Your task to perform on an android device: check data usage Image 0: 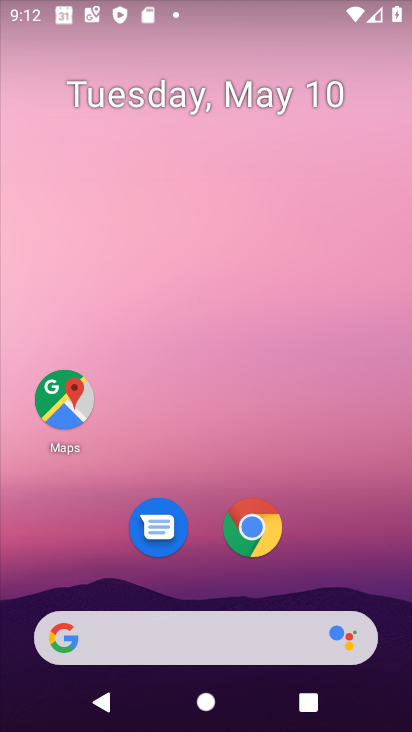
Step 0: drag from (324, 552) to (368, 116)
Your task to perform on an android device: check data usage Image 1: 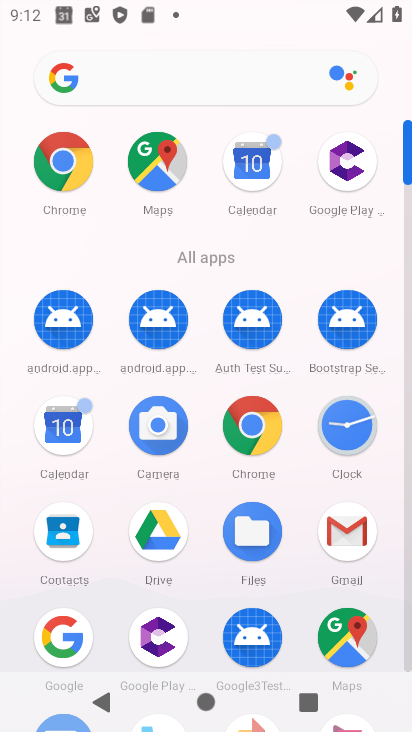
Step 1: drag from (258, 482) to (306, 338)
Your task to perform on an android device: check data usage Image 2: 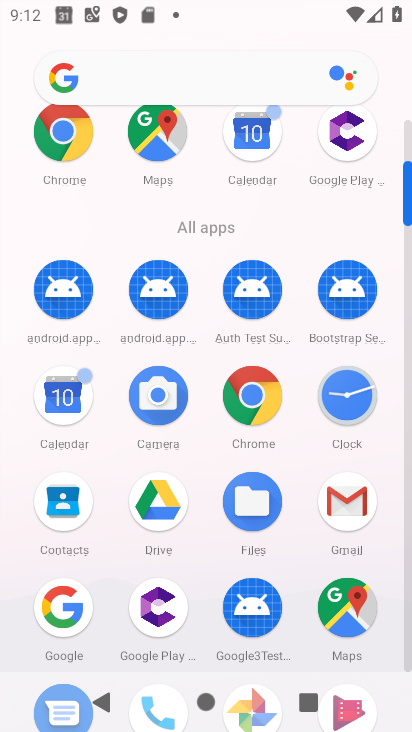
Step 2: drag from (273, 615) to (310, 355)
Your task to perform on an android device: check data usage Image 3: 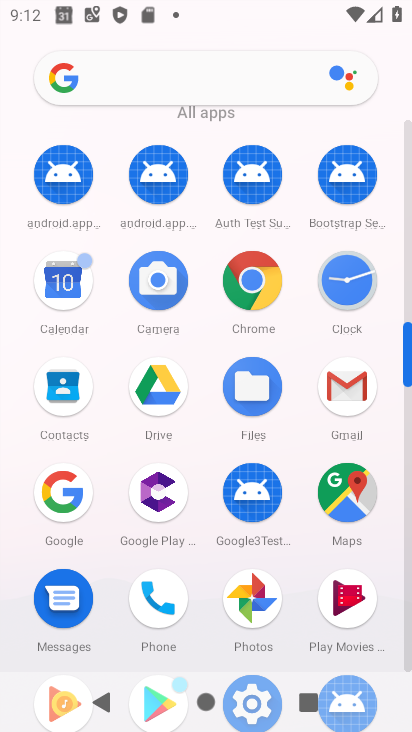
Step 3: drag from (194, 594) to (216, 381)
Your task to perform on an android device: check data usage Image 4: 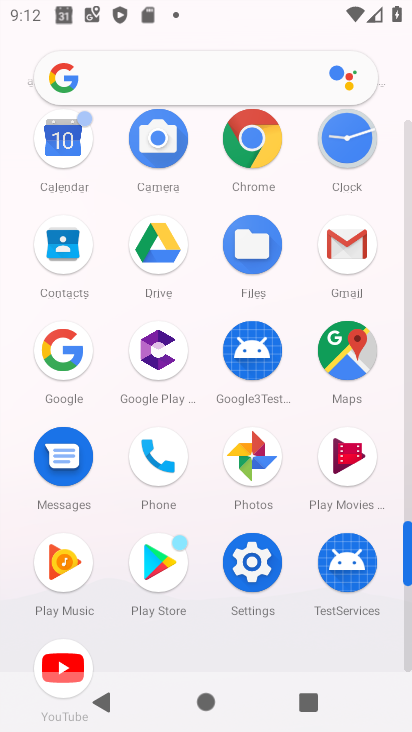
Step 4: click (251, 559)
Your task to perform on an android device: check data usage Image 5: 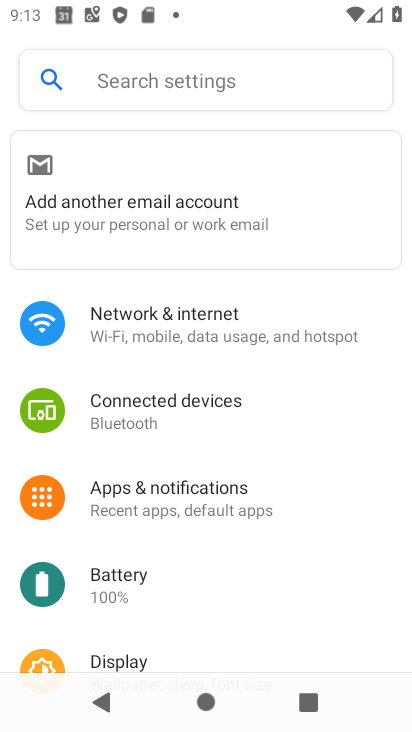
Step 5: click (188, 341)
Your task to perform on an android device: check data usage Image 6: 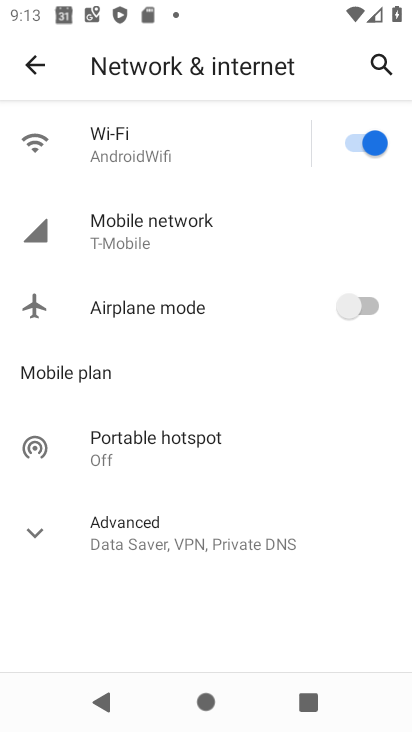
Step 6: click (150, 236)
Your task to perform on an android device: check data usage Image 7: 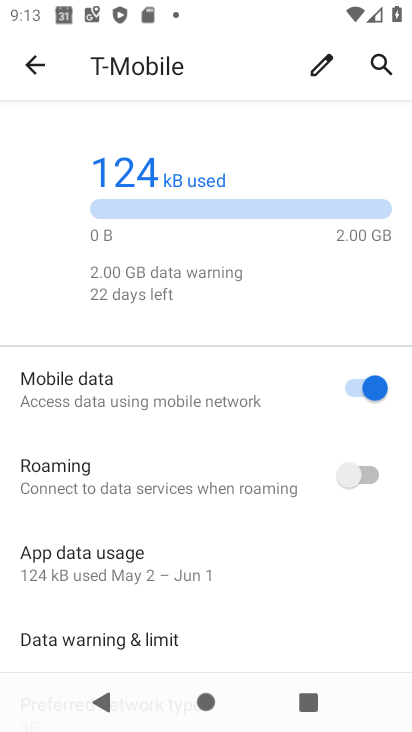
Step 7: task complete